Your task to perform on an android device: refresh tabs in the chrome app Image 0: 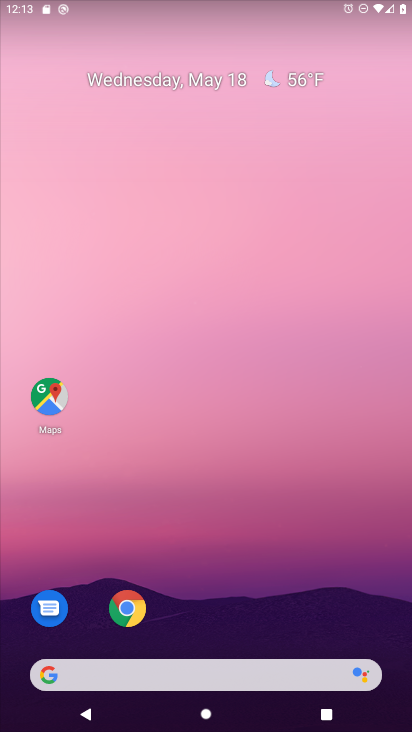
Step 0: drag from (236, 699) to (213, 155)
Your task to perform on an android device: refresh tabs in the chrome app Image 1: 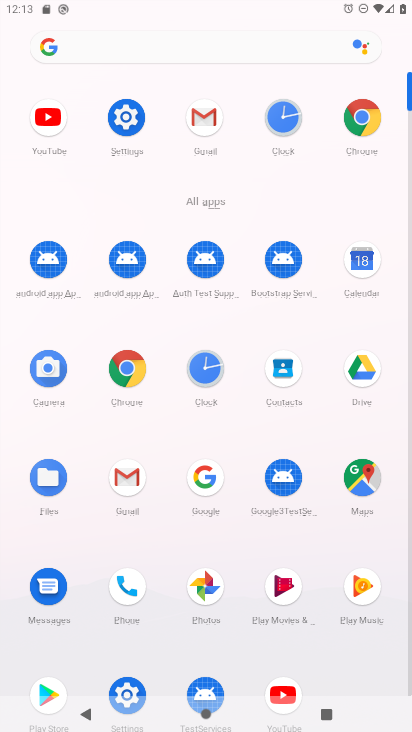
Step 1: click (354, 133)
Your task to perform on an android device: refresh tabs in the chrome app Image 2: 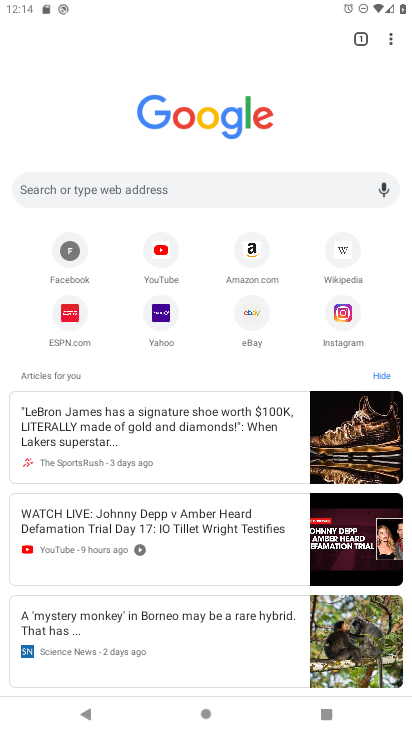
Step 2: click (383, 44)
Your task to perform on an android device: refresh tabs in the chrome app Image 3: 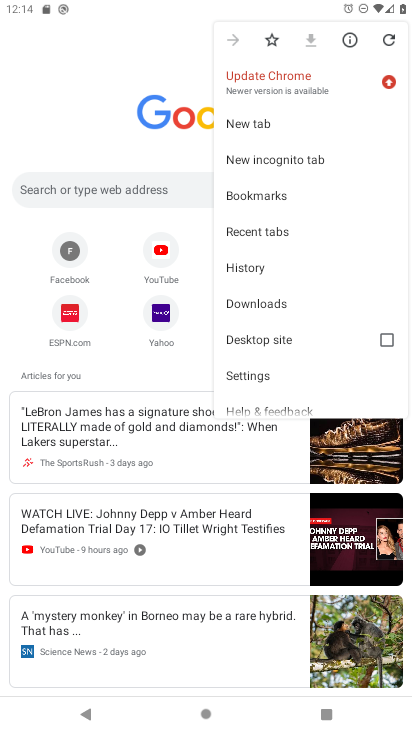
Step 3: click (386, 42)
Your task to perform on an android device: refresh tabs in the chrome app Image 4: 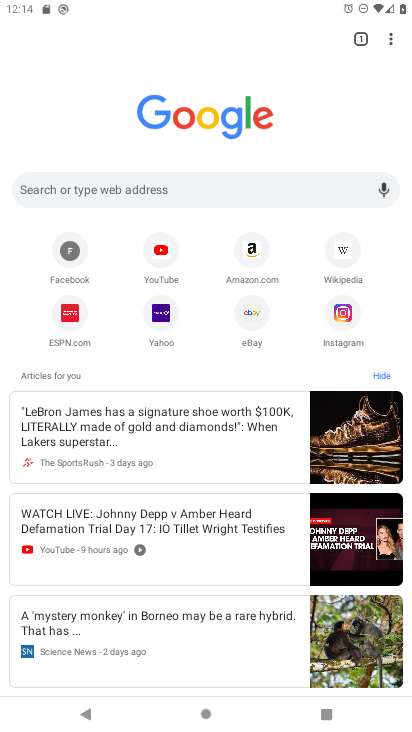
Step 4: task complete